Your task to perform on an android device: change the clock display to show seconds Image 0: 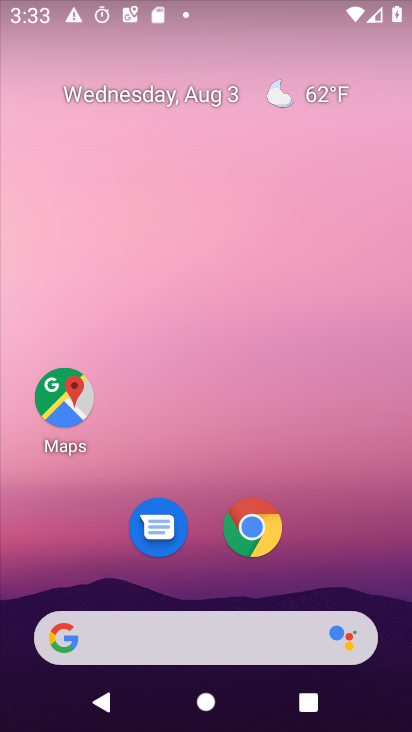
Step 0: drag from (323, 538) to (171, 89)
Your task to perform on an android device: change the clock display to show seconds Image 1: 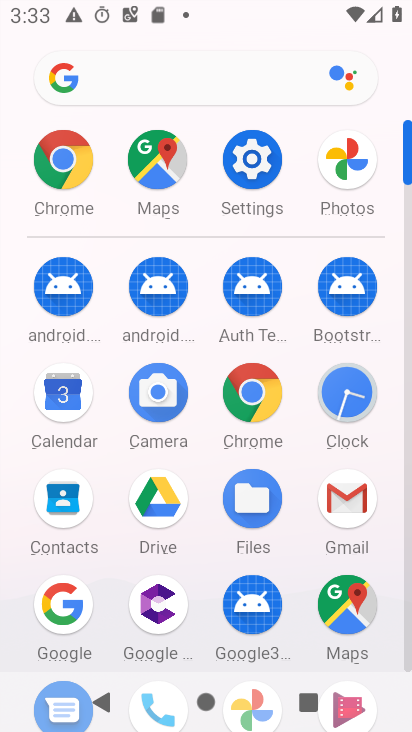
Step 1: click (342, 376)
Your task to perform on an android device: change the clock display to show seconds Image 2: 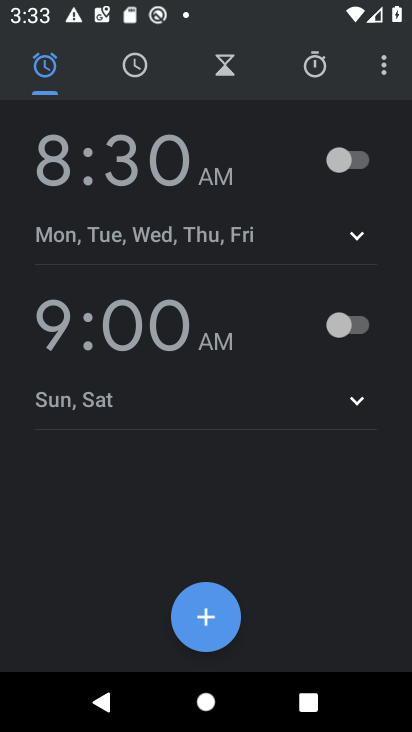
Step 2: click (378, 75)
Your task to perform on an android device: change the clock display to show seconds Image 3: 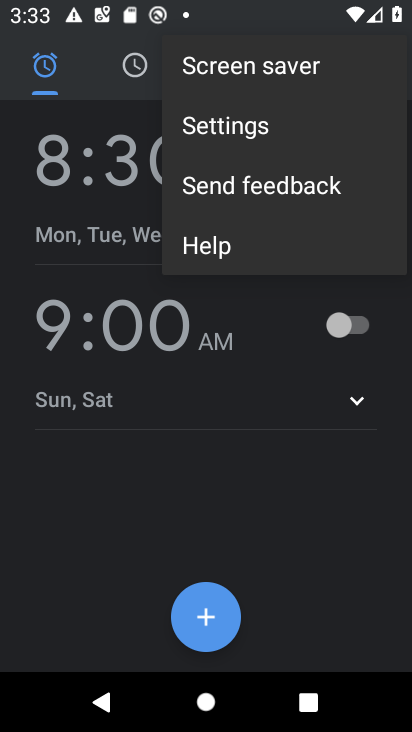
Step 3: click (259, 145)
Your task to perform on an android device: change the clock display to show seconds Image 4: 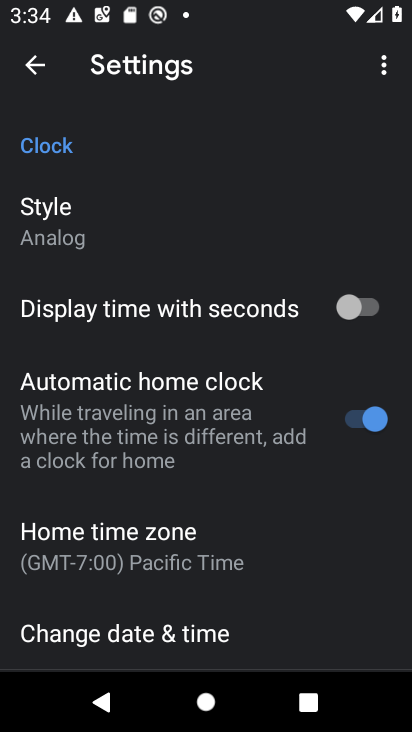
Step 4: click (298, 302)
Your task to perform on an android device: change the clock display to show seconds Image 5: 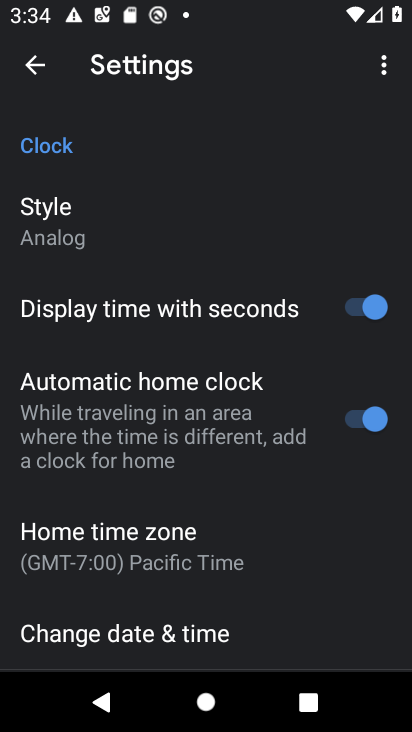
Step 5: task complete